Your task to perform on an android device: toggle airplane mode Image 0: 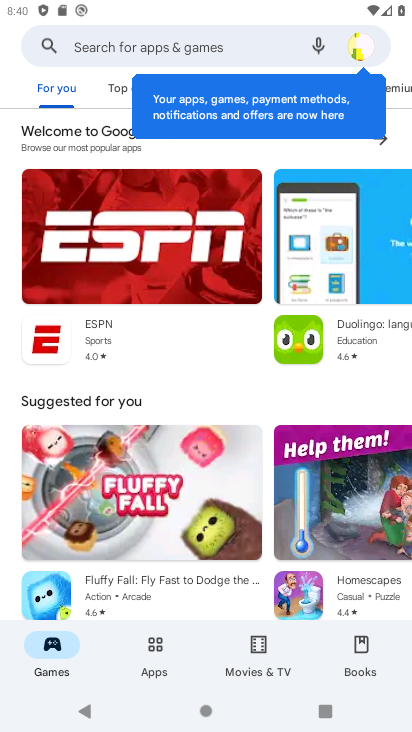
Step 0: press home button
Your task to perform on an android device: toggle airplane mode Image 1: 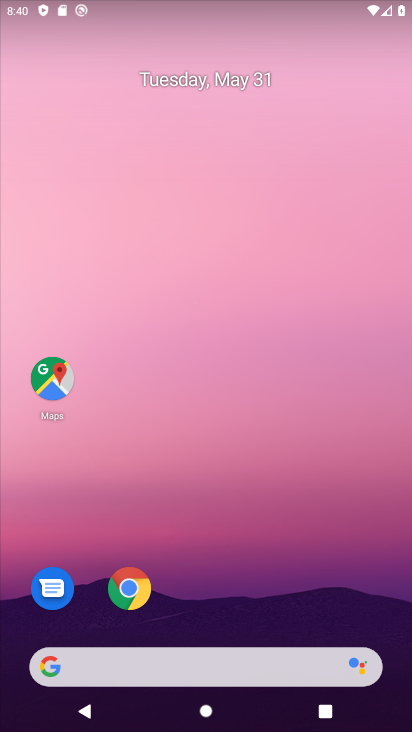
Step 1: drag from (131, 719) to (228, 152)
Your task to perform on an android device: toggle airplane mode Image 2: 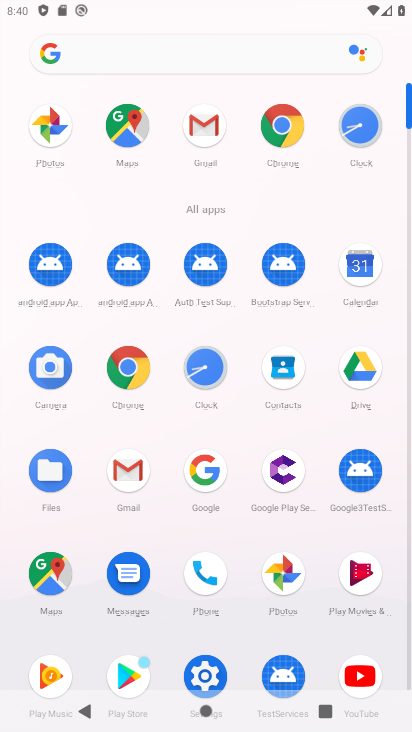
Step 2: click (226, 664)
Your task to perform on an android device: toggle airplane mode Image 3: 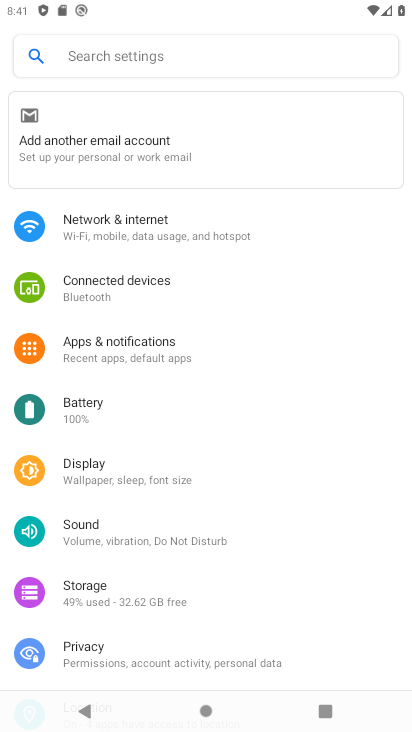
Step 3: click (191, 227)
Your task to perform on an android device: toggle airplane mode Image 4: 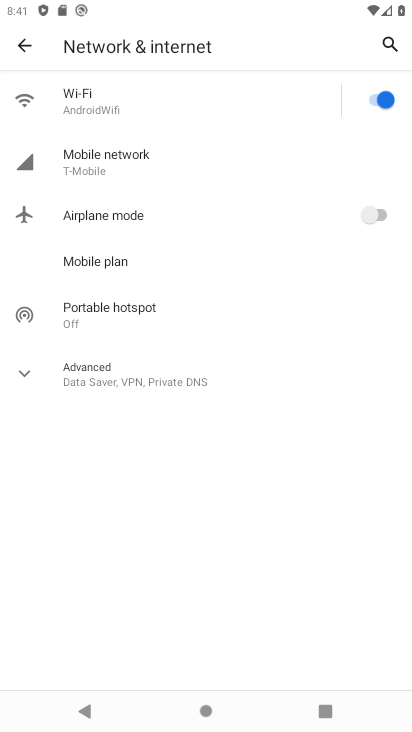
Step 4: click (373, 209)
Your task to perform on an android device: toggle airplane mode Image 5: 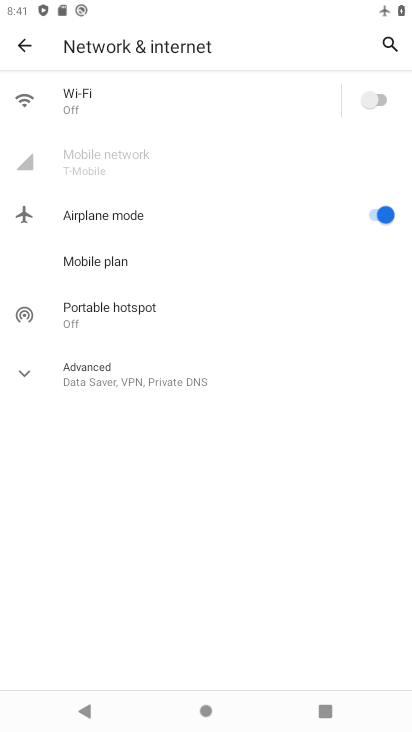
Step 5: task complete